Your task to perform on an android device: turn on improve location accuracy Image 0: 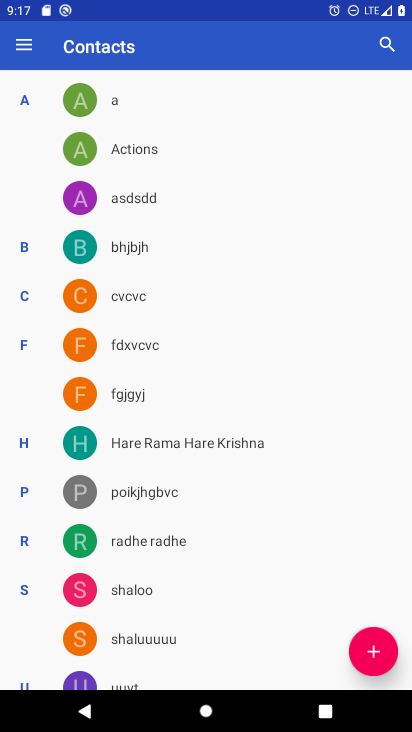
Step 0: press home button
Your task to perform on an android device: turn on improve location accuracy Image 1: 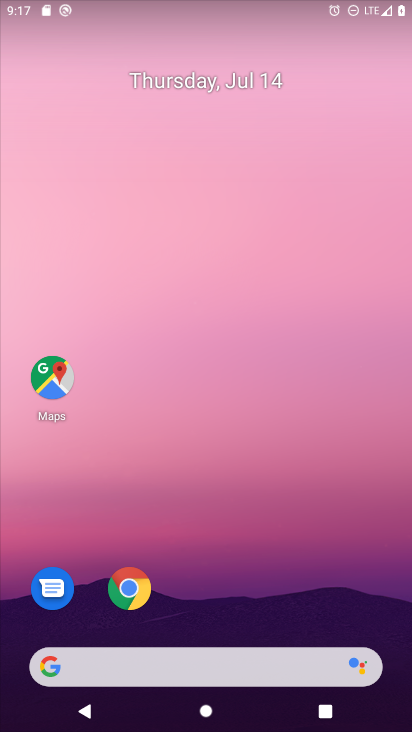
Step 1: drag from (279, 536) to (350, 0)
Your task to perform on an android device: turn on improve location accuracy Image 2: 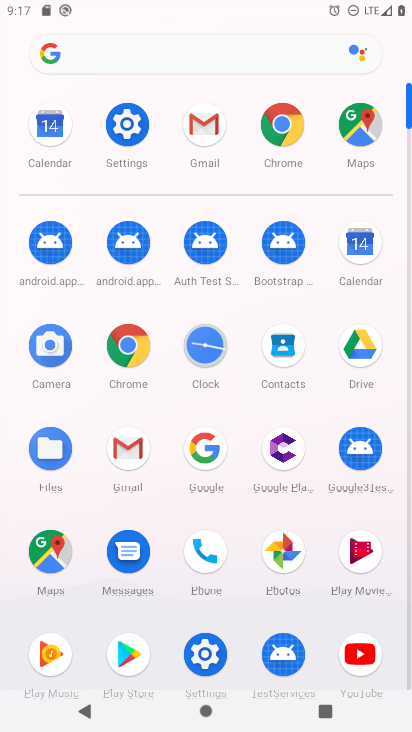
Step 2: click (118, 131)
Your task to perform on an android device: turn on improve location accuracy Image 3: 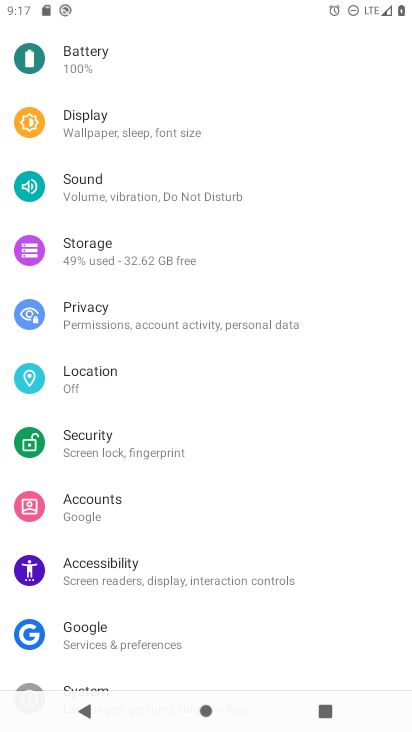
Step 3: click (81, 388)
Your task to perform on an android device: turn on improve location accuracy Image 4: 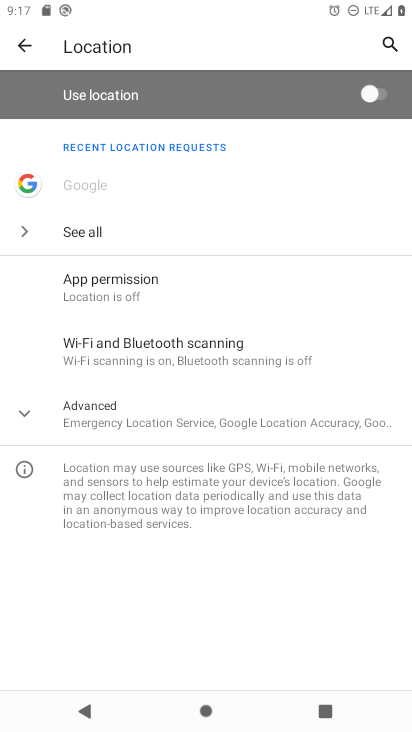
Step 4: click (64, 406)
Your task to perform on an android device: turn on improve location accuracy Image 5: 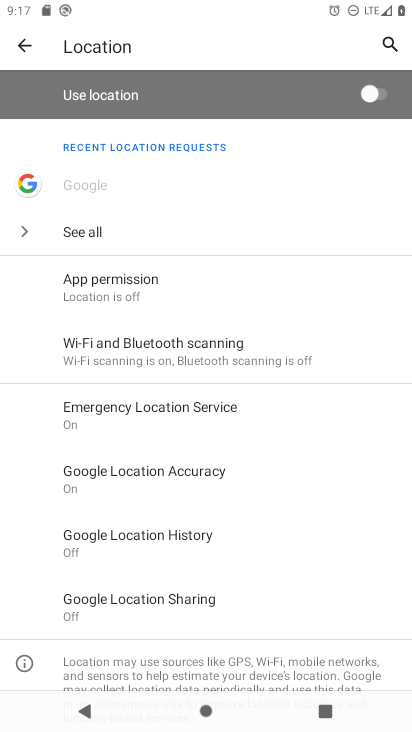
Step 5: click (215, 486)
Your task to perform on an android device: turn on improve location accuracy Image 6: 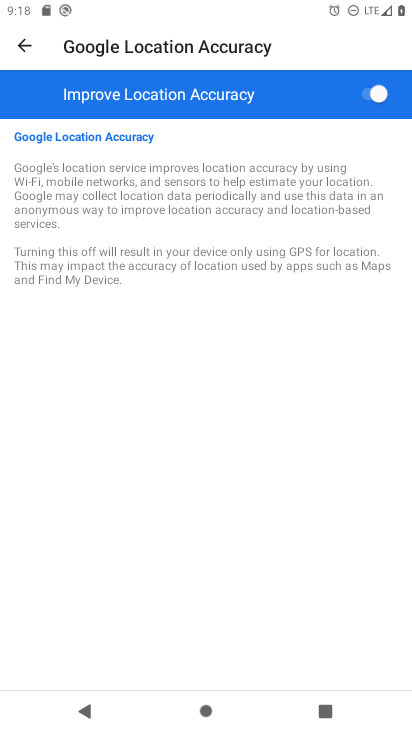
Step 6: task complete